Your task to perform on an android device: turn off javascript in the chrome app Image 0: 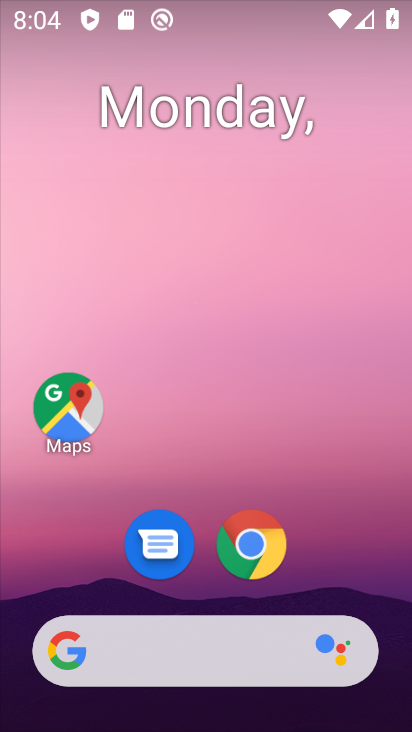
Step 0: click (240, 558)
Your task to perform on an android device: turn off javascript in the chrome app Image 1: 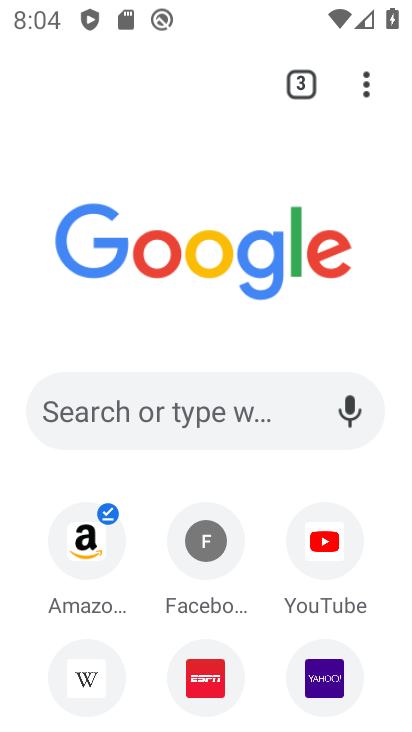
Step 1: click (372, 75)
Your task to perform on an android device: turn off javascript in the chrome app Image 2: 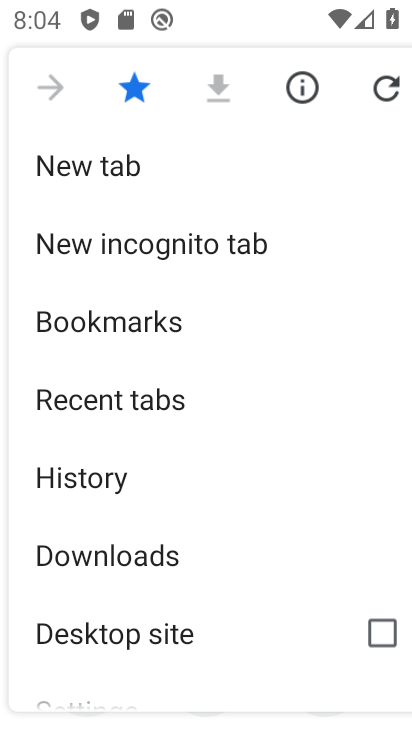
Step 2: drag from (129, 615) to (69, 138)
Your task to perform on an android device: turn off javascript in the chrome app Image 3: 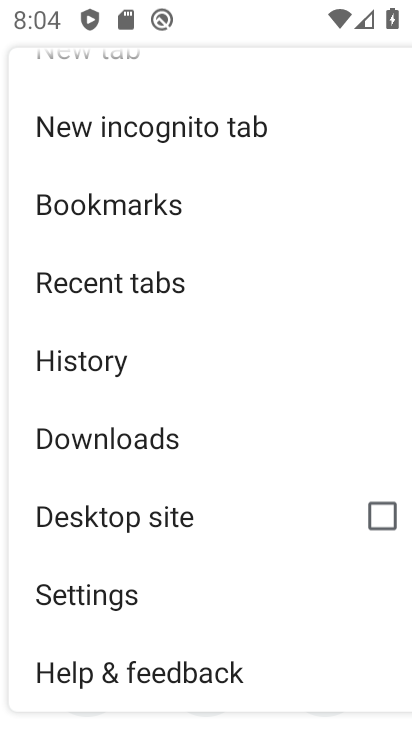
Step 3: click (153, 600)
Your task to perform on an android device: turn off javascript in the chrome app Image 4: 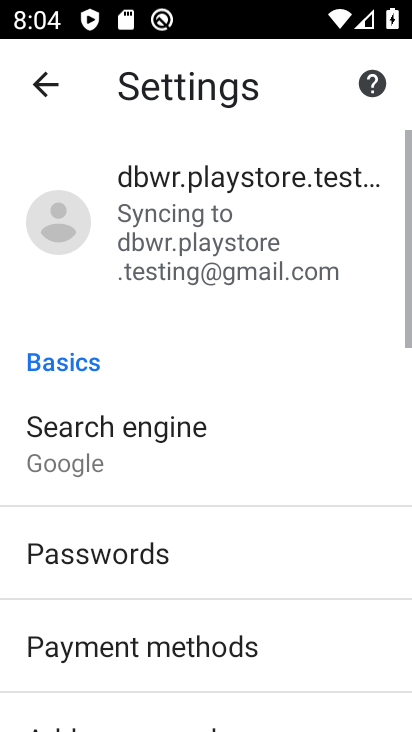
Step 4: drag from (155, 593) to (40, 0)
Your task to perform on an android device: turn off javascript in the chrome app Image 5: 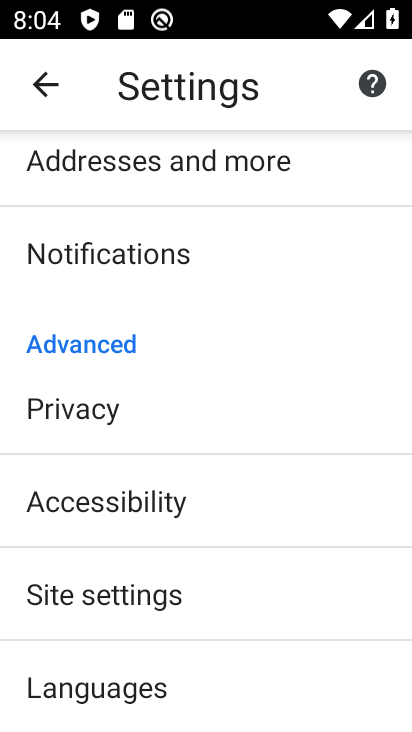
Step 5: click (141, 626)
Your task to perform on an android device: turn off javascript in the chrome app Image 6: 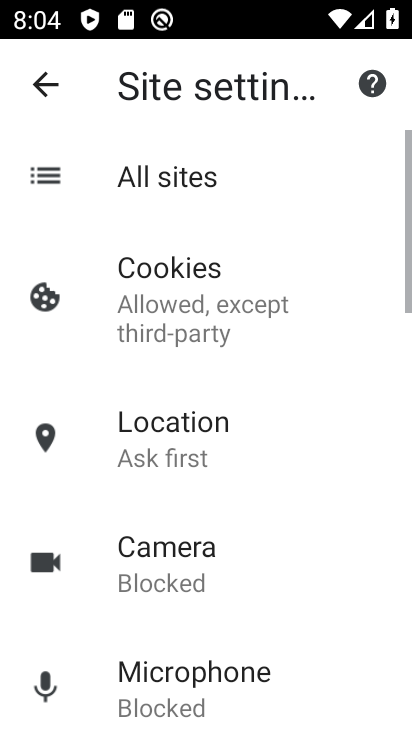
Step 6: drag from (141, 622) to (68, 144)
Your task to perform on an android device: turn off javascript in the chrome app Image 7: 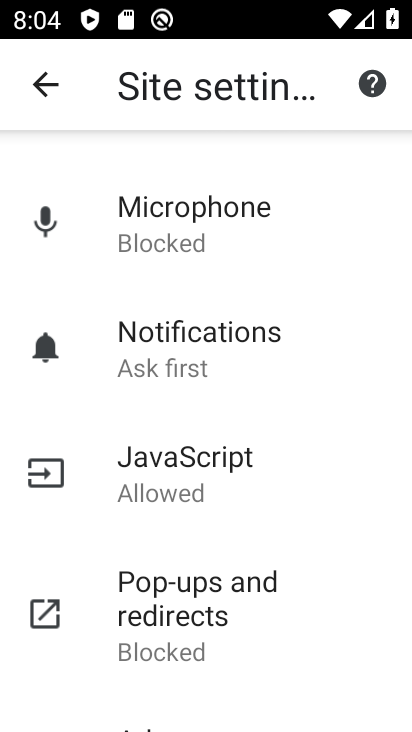
Step 7: click (199, 502)
Your task to perform on an android device: turn off javascript in the chrome app Image 8: 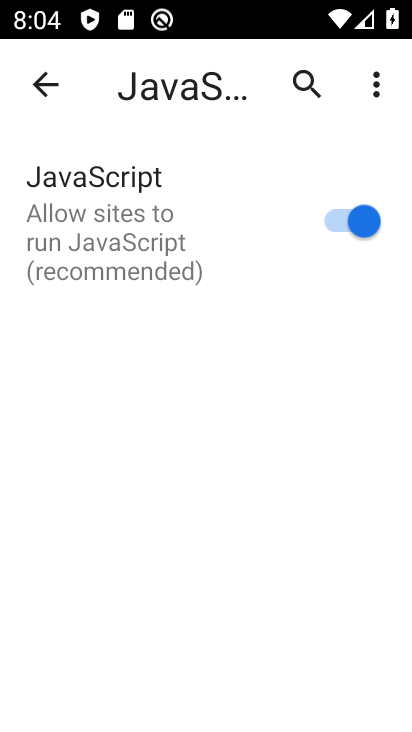
Step 8: click (365, 237)
Your task to perform on an android device: turn off javascript in the chrome app Image 9: 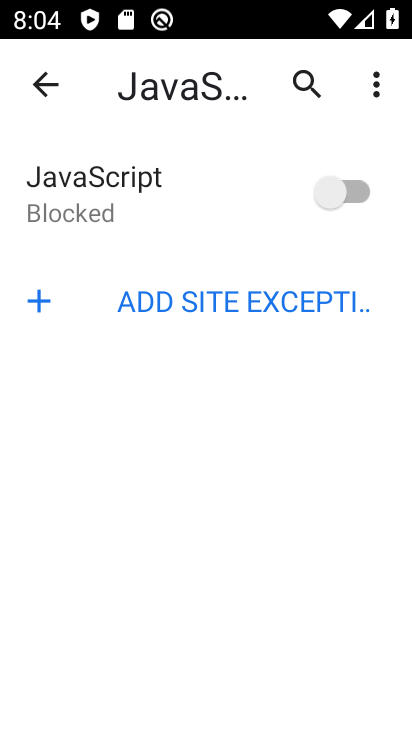
Step 9: task complete